Your task to perform on an android device: change alarm snooze length Image 0: 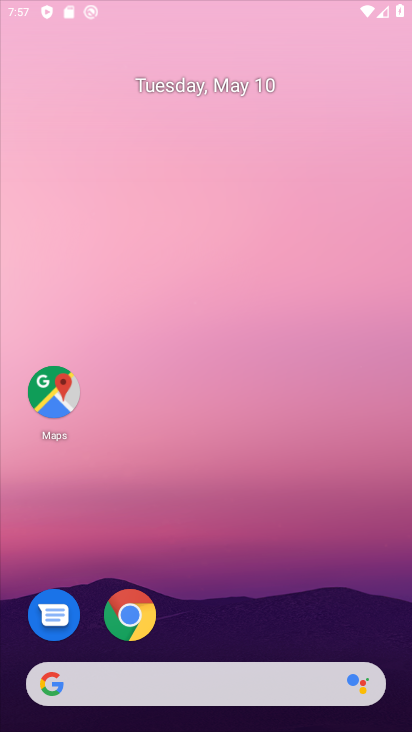
Step 0: drag from (267, 155) to (210, 203)
Your task to perform on an android device: change alarm snooze length Image 1: 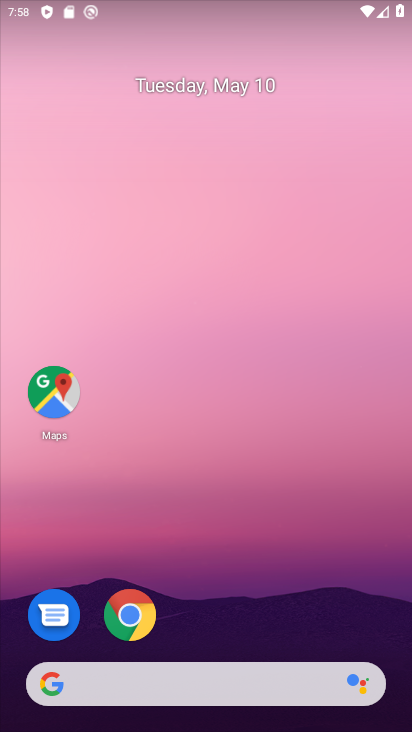
Step 1: drag from (206, 486) to (245, 0)
Your task to perform on an android device: change alarm snooze length Image 2: 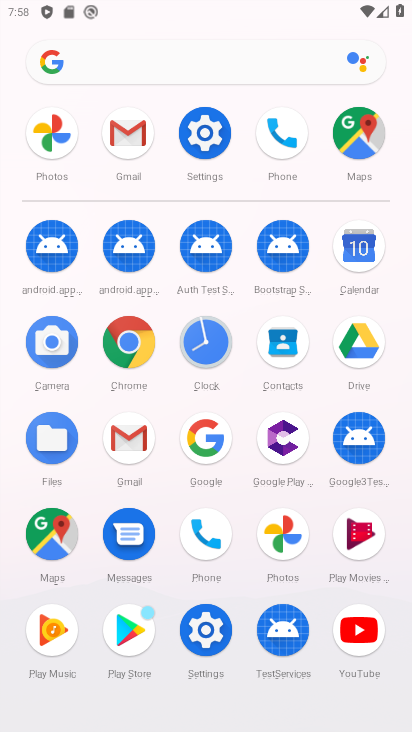
Step 2: click (214, 334)
Your task to perform on an android device: change alarm snooze length Image 3: 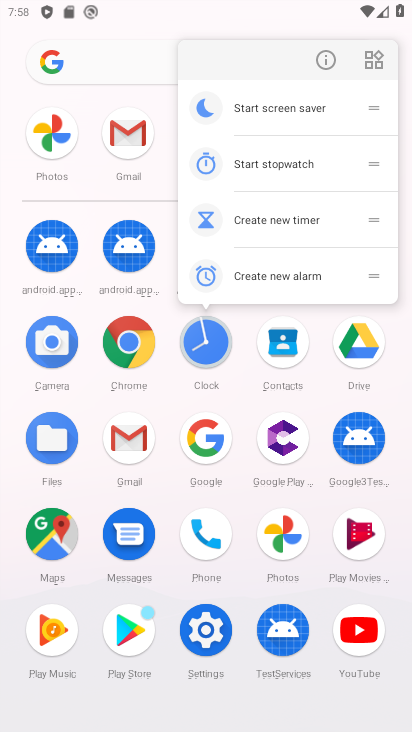
Step 3: click (326, 56)
Your task to perform on an android device: change alarm snooze length Image 4: 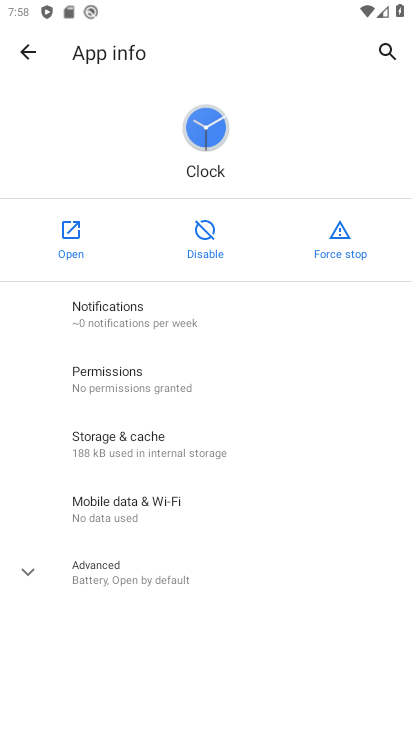
Step 4: click (71, 254)
Your task to perform on an android device: change alarm snooze length Image 5: 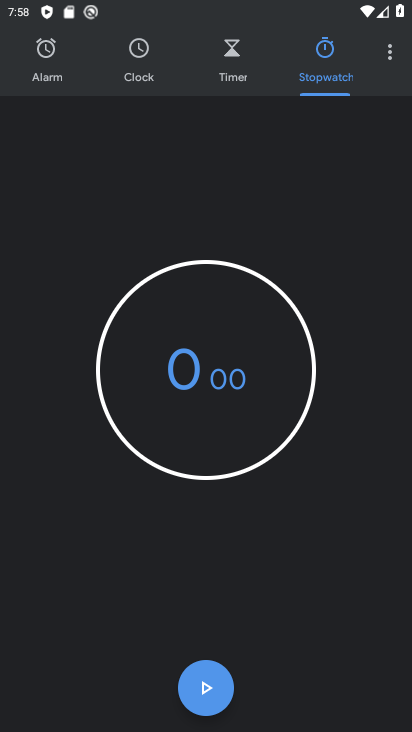
Step 5: click (394, 46)
Your task to perform on an android device: change alarm snooze length Image 6: 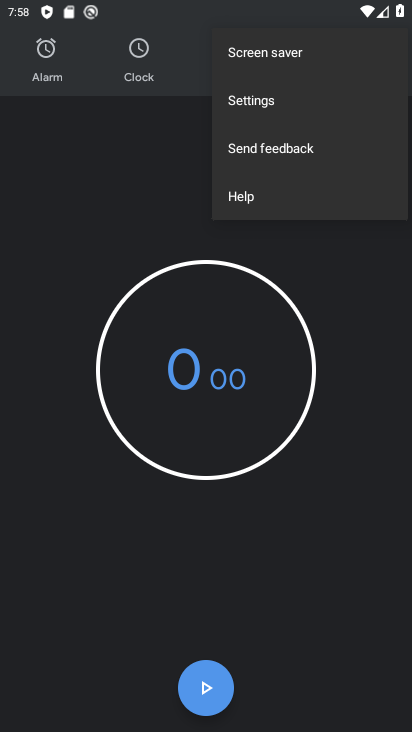
Step 6: click (280, 96)
Your task to perform on an android device: change alarm snooze length Image 7: 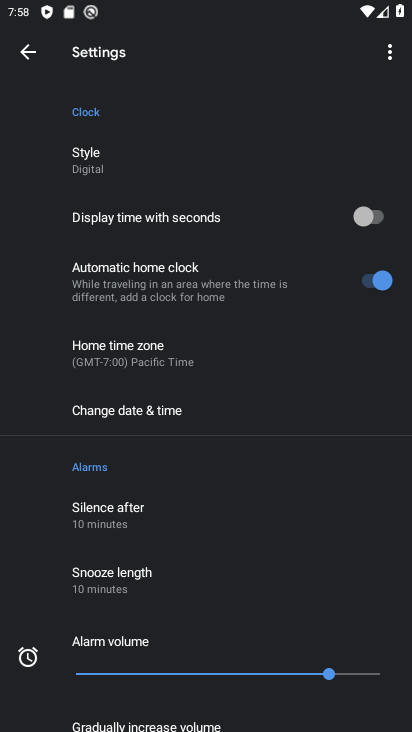
Step 7: click (191, 569)
Your task to perform on an android device: change alarm snooze length Image 8: 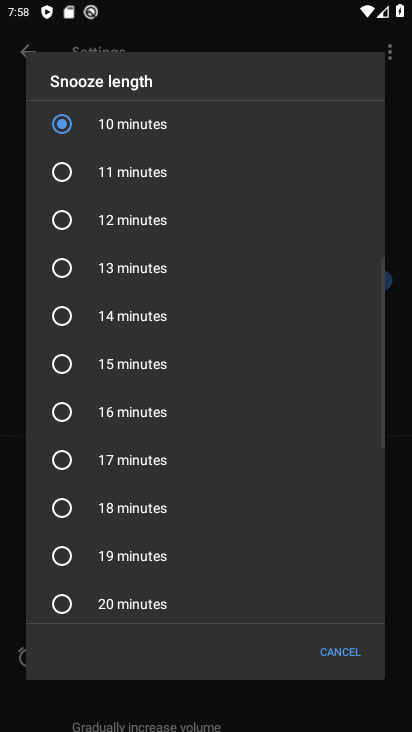
Step 8: drag from (129, 550) to (132, 258)
Your task to perform on an android device: change alarm snooze length Image 9: 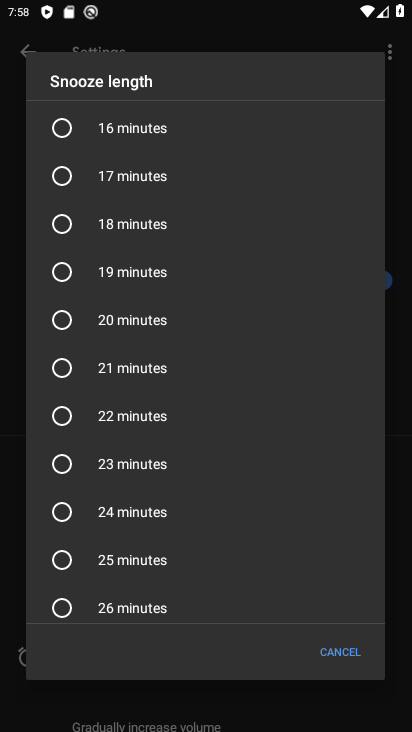
Step 9: click (62, 169)
Your task to perform on an android device: change alarm snooze length Image 10: 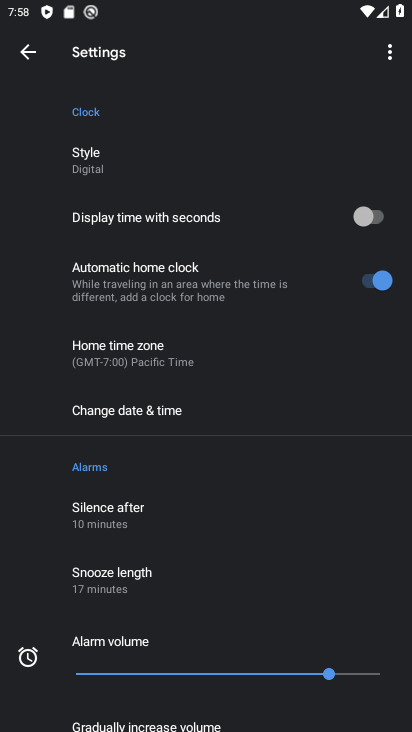
Step 10: task complete